Your task to perform on an android device: Show me the alarms in the clock app Image 0: 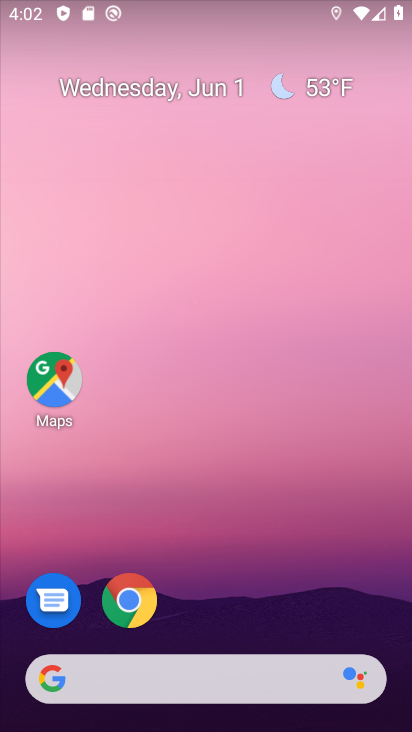
Step 0: drag from (265, 695) to (121, 99)
Your task to perform on an android device: Show me the alarms in the clock app Image 1: 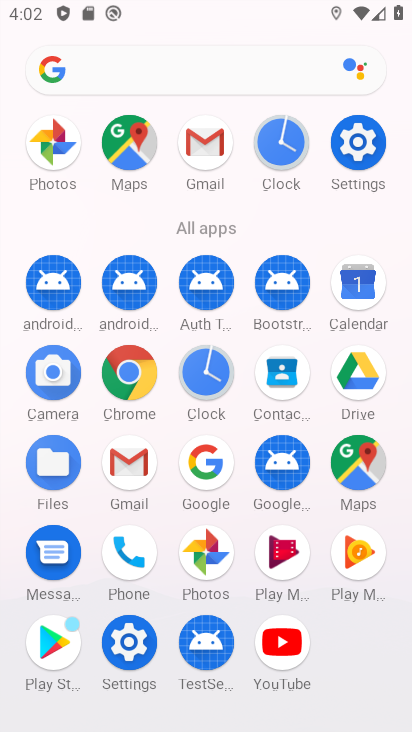
Step 1: click (195, 361)
Your task to perform on an android device: Show me the alarms in the clock app Image 2: 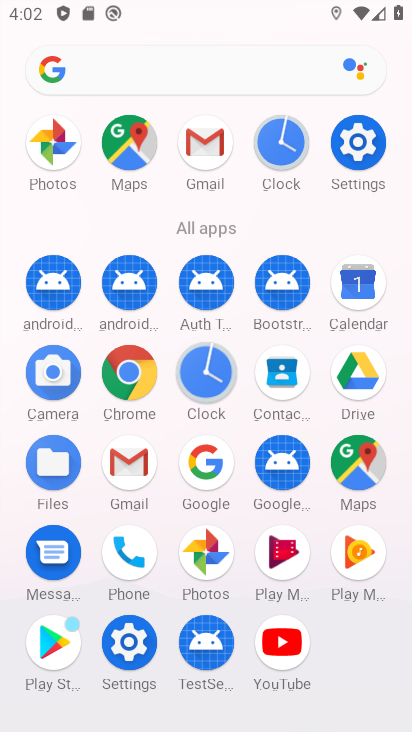
Step 2: click (196, 360)
Your task to perform on an android device: Show me the alarms in the clock app Image 3: 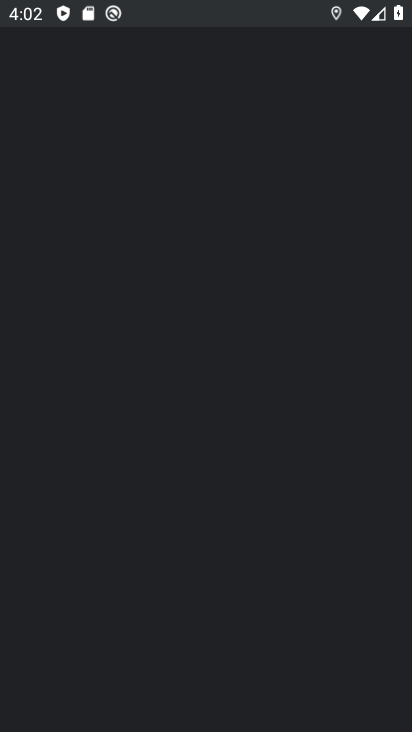
Step 3: click (204, 360)
Your task to perform on an android device: Show me the alarms in the clock app Image 4: 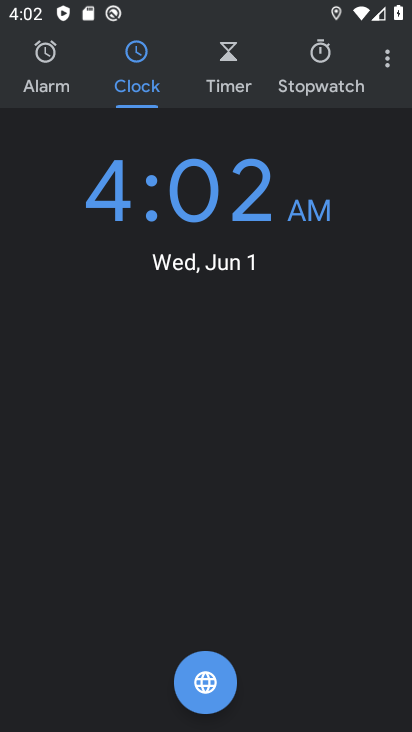
Step 4: click (57, 83)
Your task to perform on an android device: Show me the alarms in the clock app Image 5: 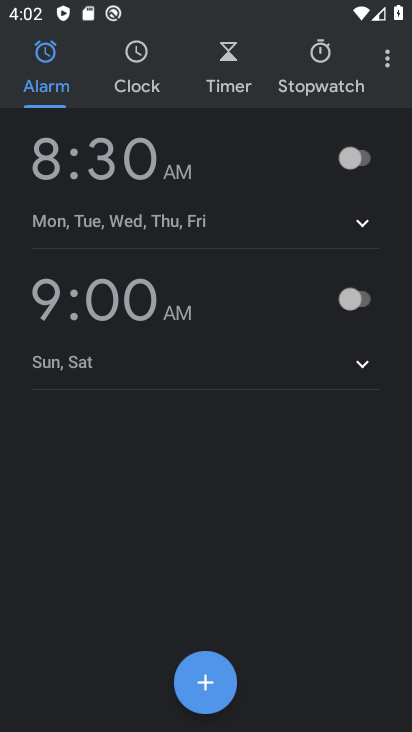
Step 5: click (356, 161)
Your task to perform on an android device: Show me the alarms in the clock app Image 6: 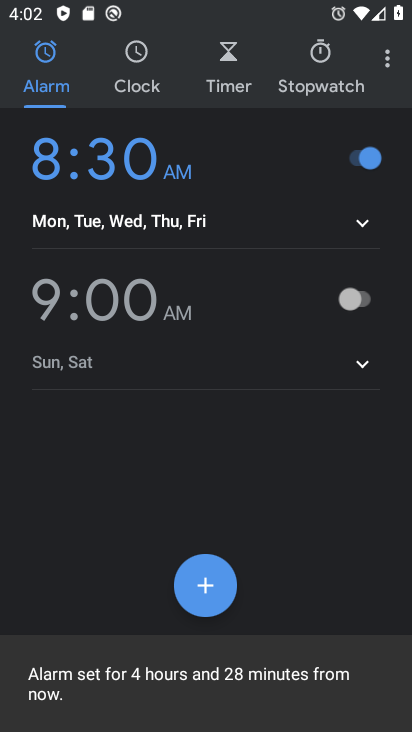
Step 6: click (359, 161)
Your task to perform on an android device: Show me the alarms in the clock app Image 7: 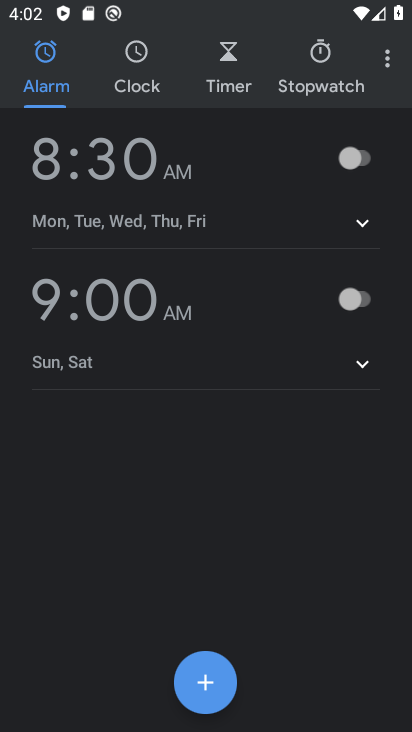
Step 7: task complete